Your task to perform on an android device: turn off picture-in-picture Image 0: 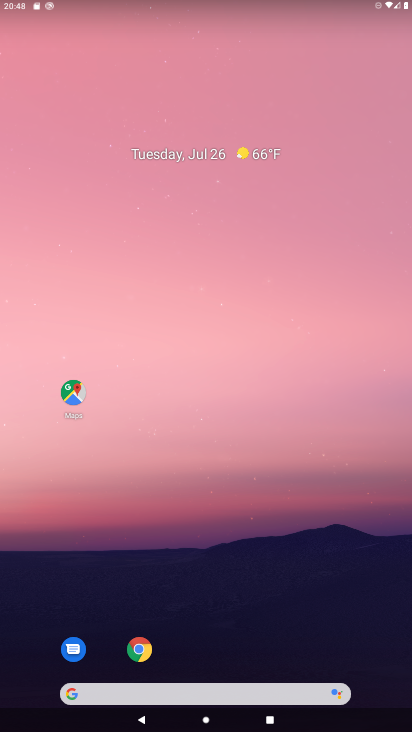
Step 0: click (145, 655)
Your task to perform on an android device: turn off picture-in-picture Image 1: 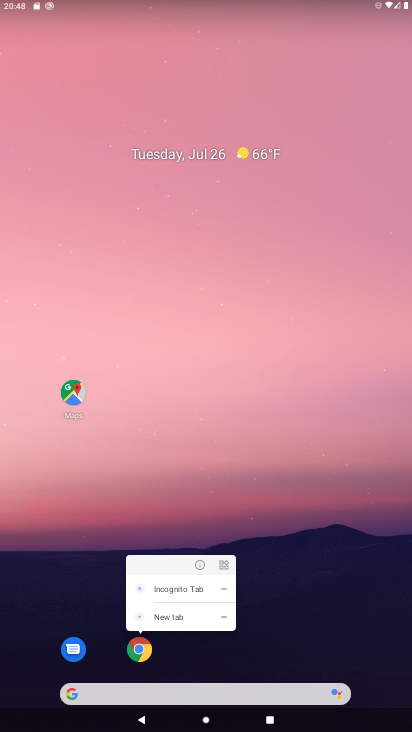
Step 1: click (200, 570)
Your task to perform on an android device: turn off picture-in-picture Image 2: 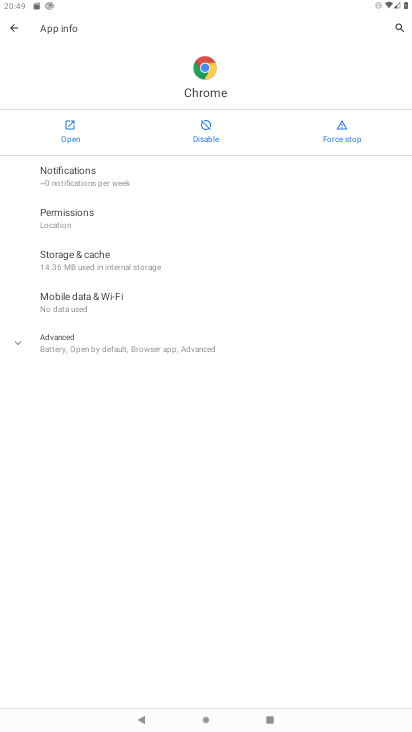
Step 2: click (125, 341)
Your task to perform on an android device: turn off picture-in-picture Image 3: 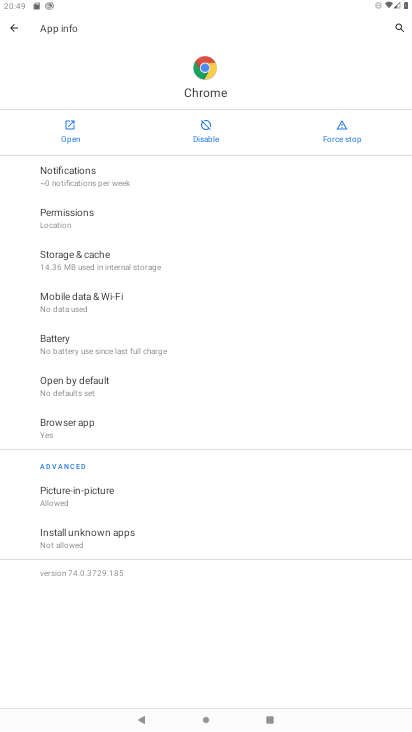
Step 3: click (124, 498)
Your task to perform on an android device: turn off picture-in-picture Image 4: 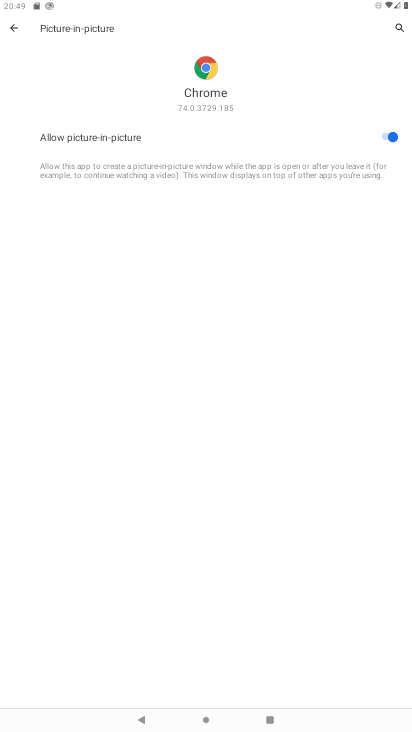
Step 4: click (386, 129)
Your task to perform on an android device: turn off picture-in-picture Image 5: 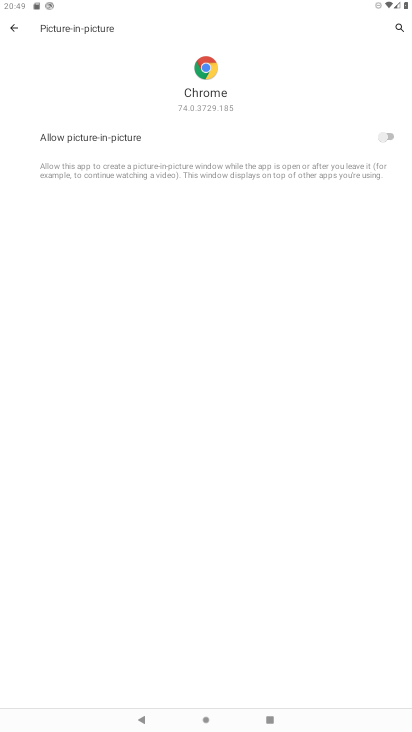
Step 5: task complete